Your task to perform on an android device: Open settings on Google Maps Image 0: 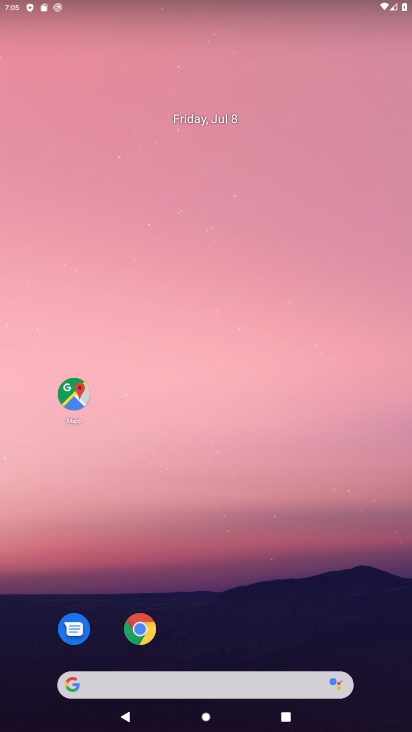
Step 0: click (71, 393)
Your task to perform on an android device: Open settings on Google Maps Image 1: 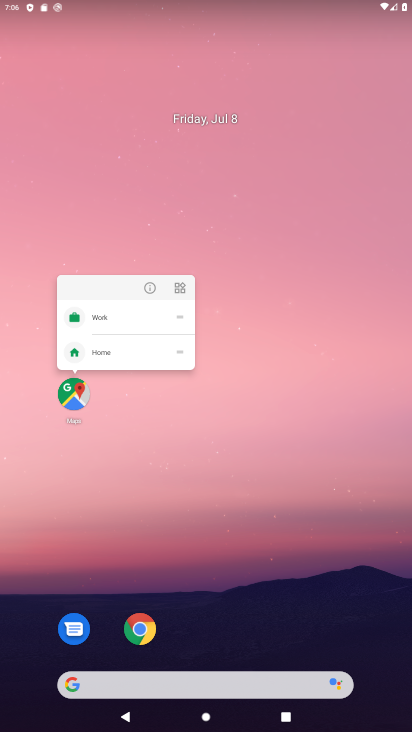
Step 1: click (64, 408)
Your task to perform on an android device: Open settings on Google Maps Image 2: 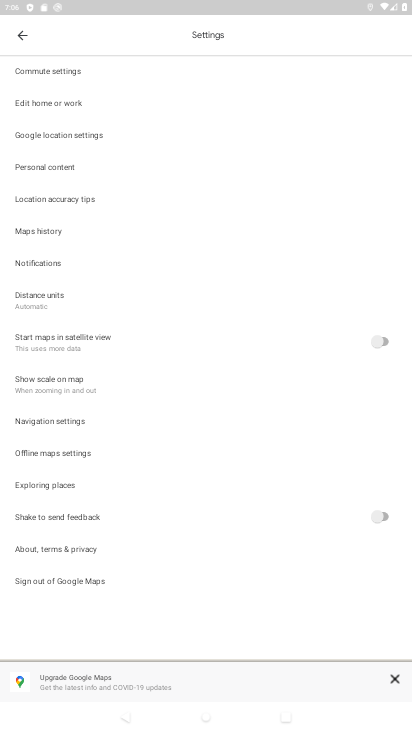
Step 2: task complete